Your task to perform on an android device: turn on notifications settings in the gmail app Image 0: 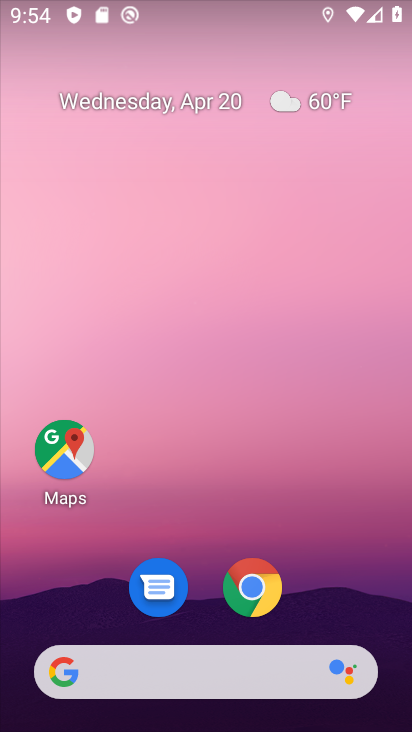
Step 0: drag from (323, 506) to (276, 183)
Your task to perform on an android device: turn on notifications settings in the gmail app Image 1: 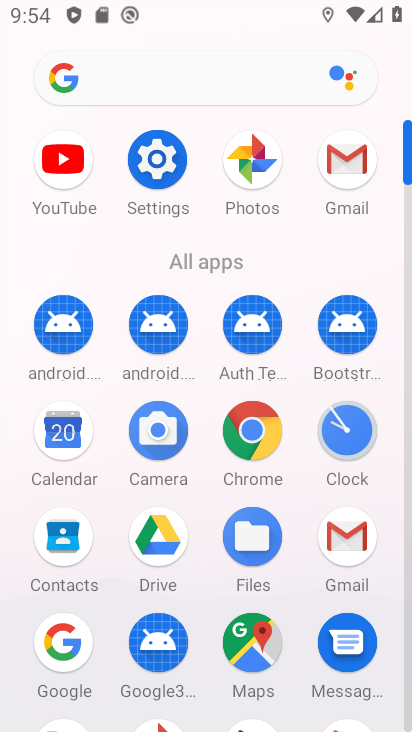
Step 1: click (347, 523)
Your task to perform on an android device: turn on notifications settings in the gmail app Image 2: 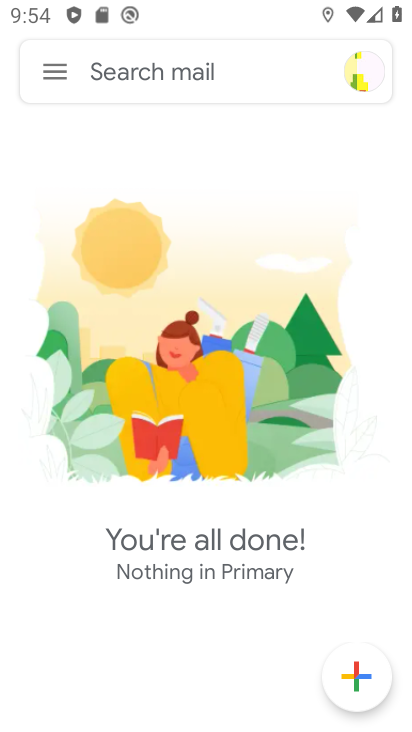
Step 2: click (46, 76)
Your task to perform on an android device: turn on notifications settings in the gmail app Image 3: 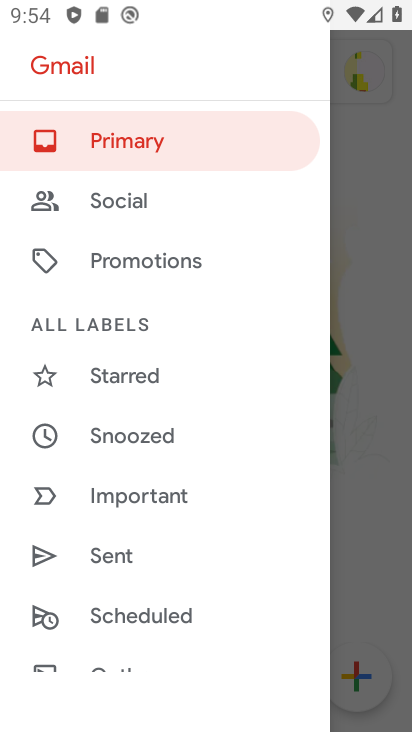
Step 3: drag from (254, 631) to (233, 117)
Your task to perform on an android device: turn on notifications settings in the gmail app Image 4: 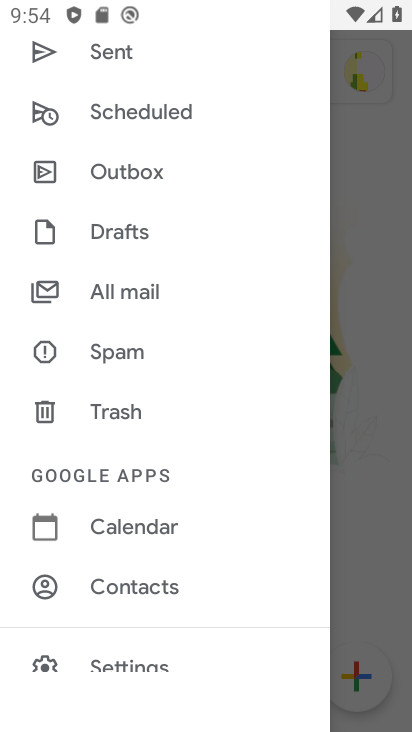
Step 4: click (143, 662)
Your task to perform on an android device: turn on notifications settings in the gmail app Image 5: 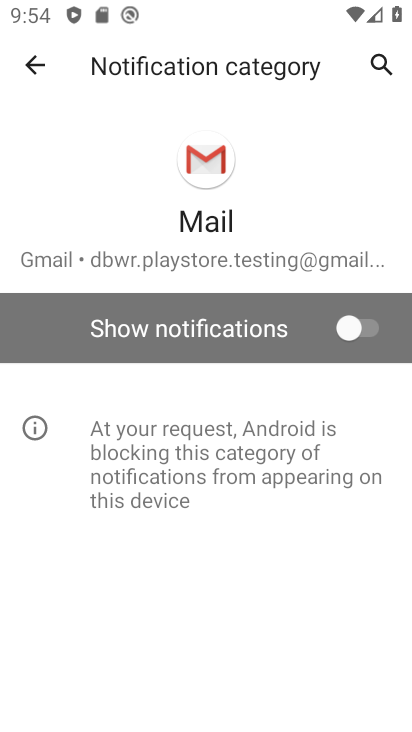
Step 5: click (350, 330)
Your task to perform on an android device: turn on notifications settings in the gmail app Image 6: 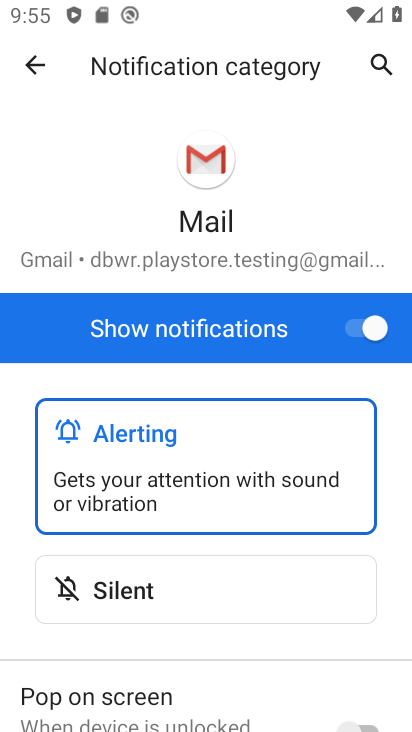
Step 6: task complete